Your task to perform on an android device: Open Google Chrome Image 0: 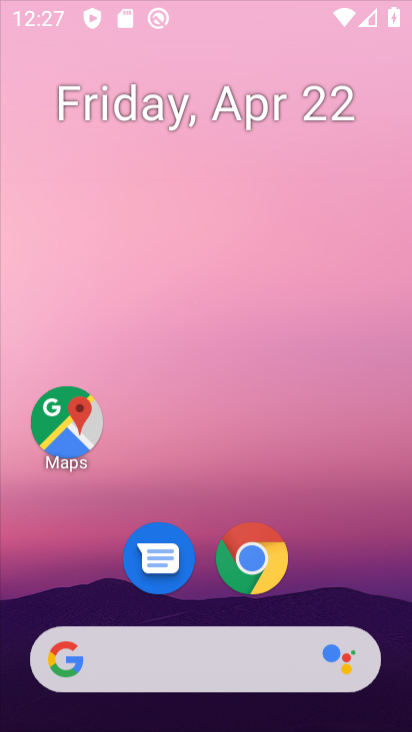
Step 0: drag from (389, 604) to (271, 143)
Your task to perform on an android device: Open Google Chrome Image 1: 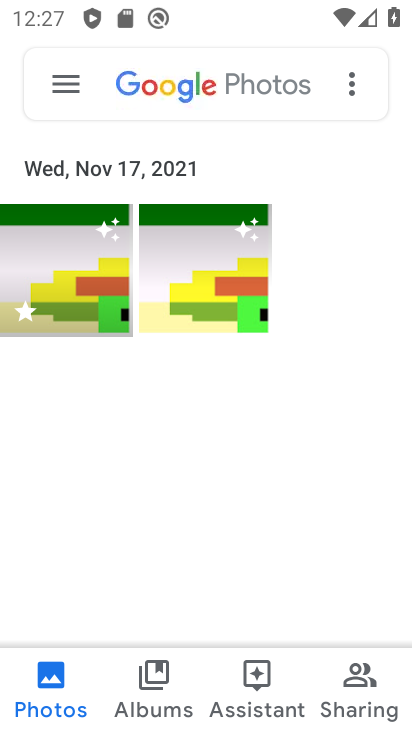
Step 1: press home button
Your task to perform on an android device: Open Google Chrome Image 2: 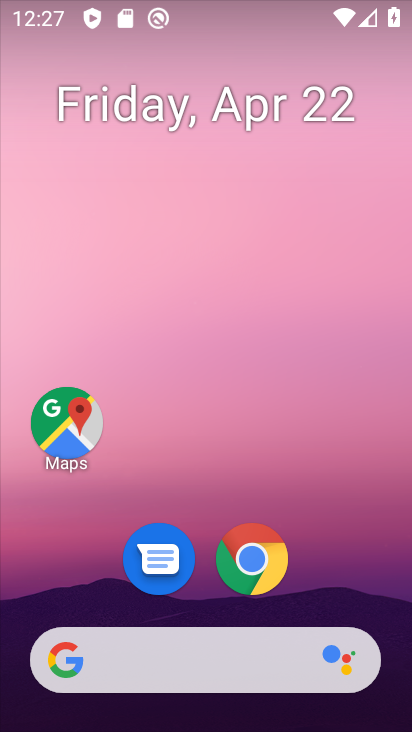
Step 2: drag from (388, 611) to (253, 61)
Your task to perform on an android device: Open Google Chrome Image 3: 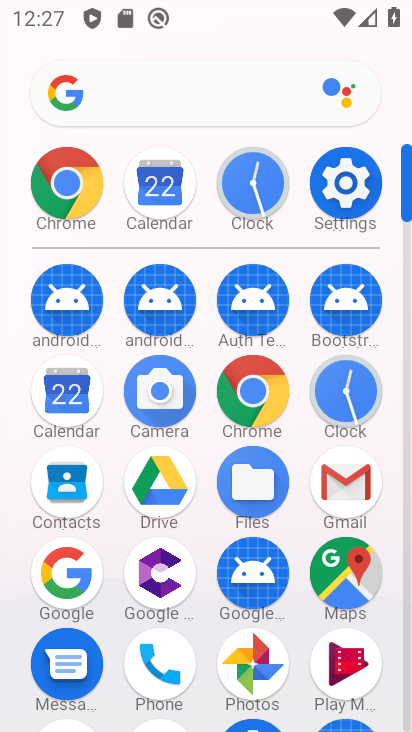
Step 3: click (275, 381)
Your task to perform on an android device: Open Google Chrome Image 4: 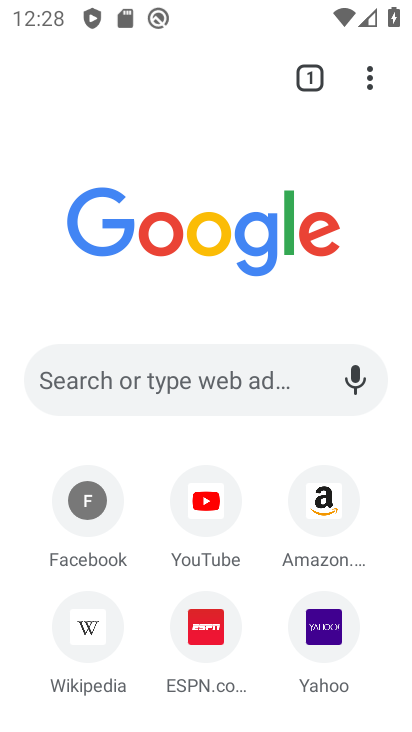
Step 4: task complete